Your task to perform on an android device: What's the weather going to be tomorrow? Image 0: 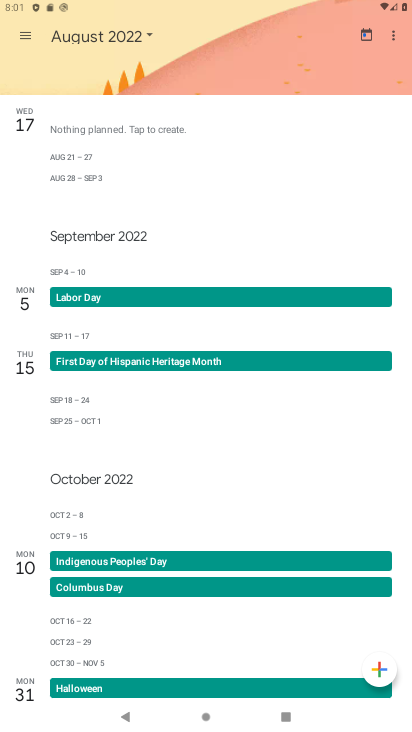
Step 0: task impossible